Your task to perform on an android device: star an email in the gmail app Image 0: 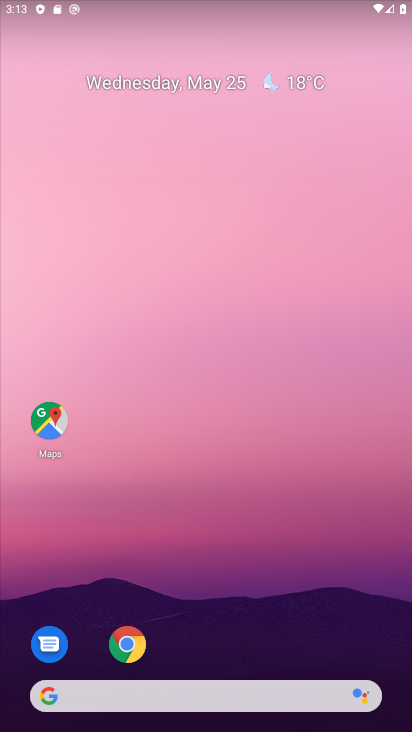
Step 0: drag from (257, 629) to (211, 168)
Your task to perform on an android device: star an email in the gmail app Image 1: 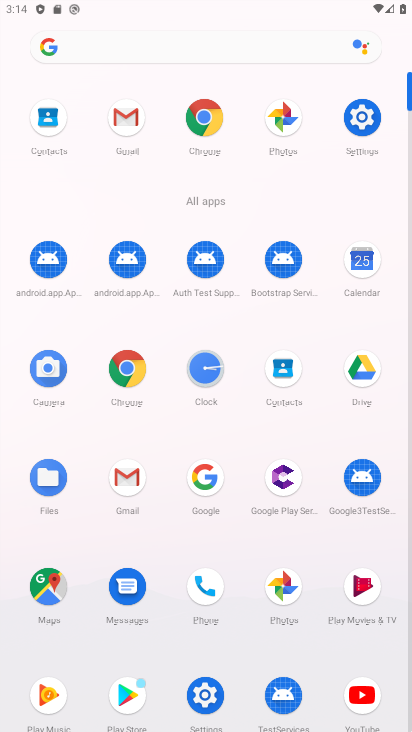
Step 1: click (124, 115)
Your task to perform on an android device: star an email in the gmail app Image 2: 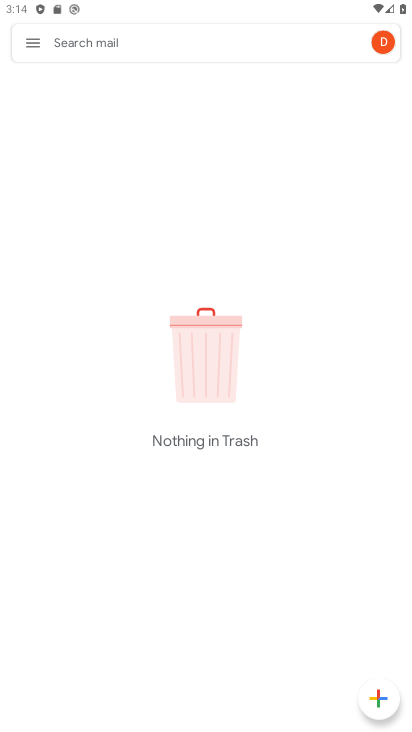
Step 2: click (36, 48)
Your task to perform on an android device: star an email in the gmail app Image 3: 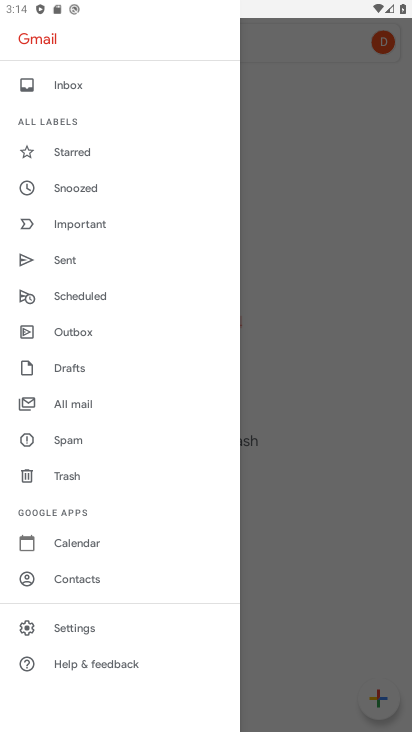
Step 3: click (70, 78)
Your task to perform on an android device: star an email in the gmail app Image 4: 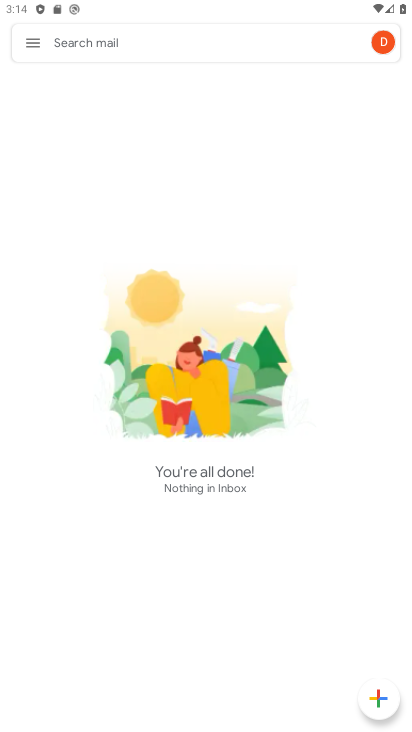
Step 4: click (37, 41)
Your task to perform on an android device: star an email in the gmail app Image 5: 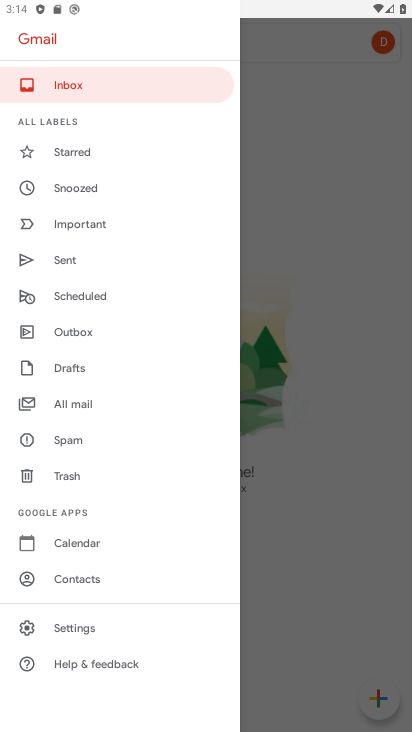
Step 5: click (85, 393)
Your task to perform on an android device: star an email in the gmail app Image 6: 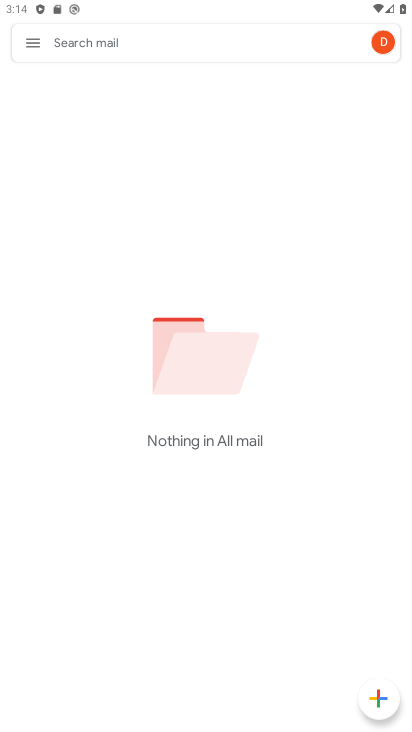
Step 6: task complete